Your task to perform on an android device: Open Reddit.com Image 0: 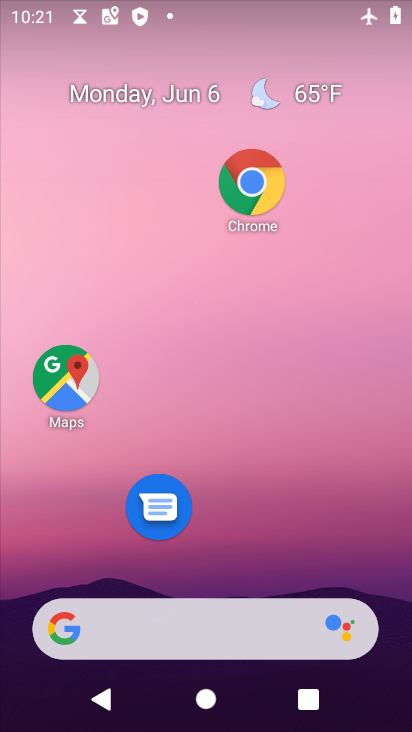
Step 0: click (246, 179)
Your task to perform on an android device: Open Reddit.com Image 1: 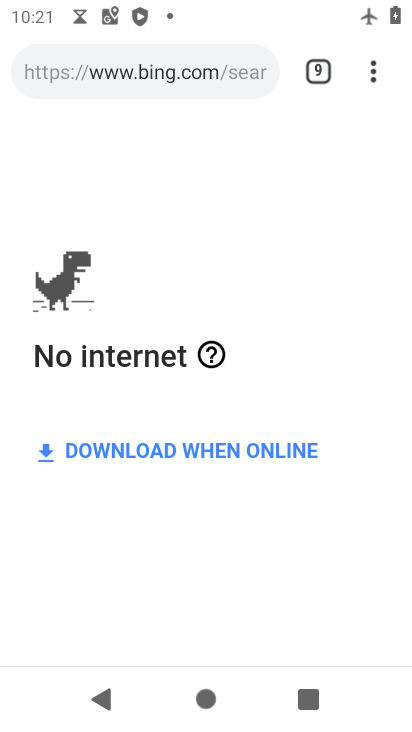
Step 1: click (385, 61)
Your task to perform on an android device: Open Reddit.com Image 2: 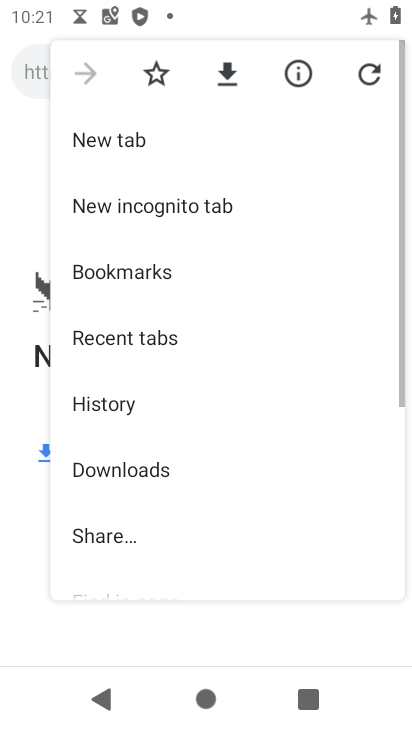
Step 2: click (127, 153)
Your task to perform on an android device: Open Reddit.com Image 3: 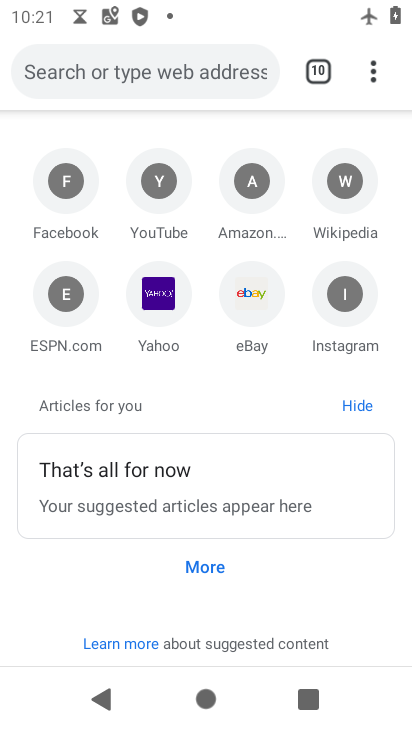
Step 3: click (171, 55)
Your task to perform on an android device: Open Reddit.com Image 4: 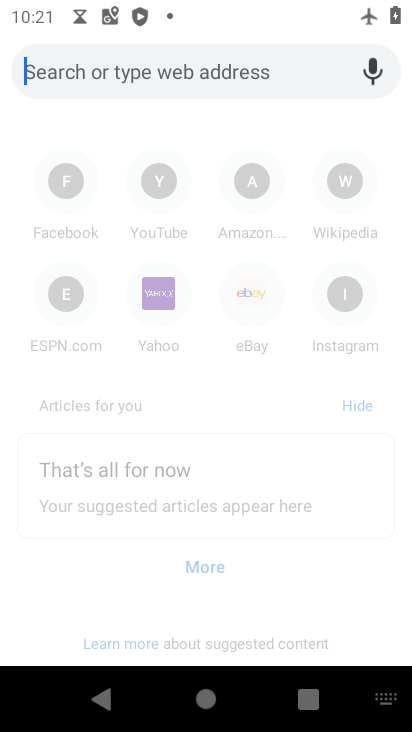
Step 4: type " Reddit.com"
Your task to perform on an android device: Open Reddit.com Image 5: 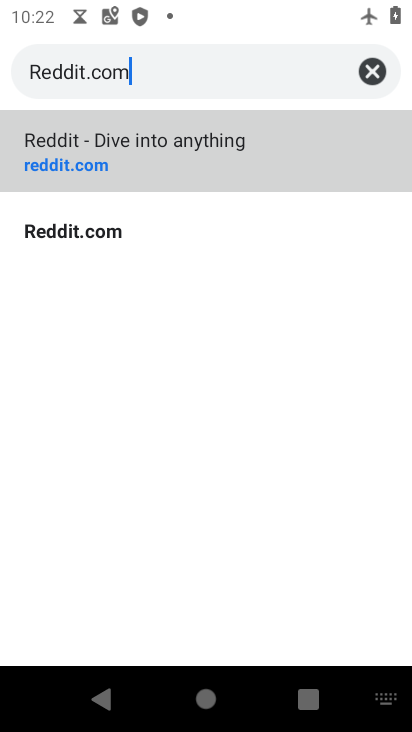
Step 5: click (214, 171)
Your task to perform on an android device: Open Reddit.com Image 6: 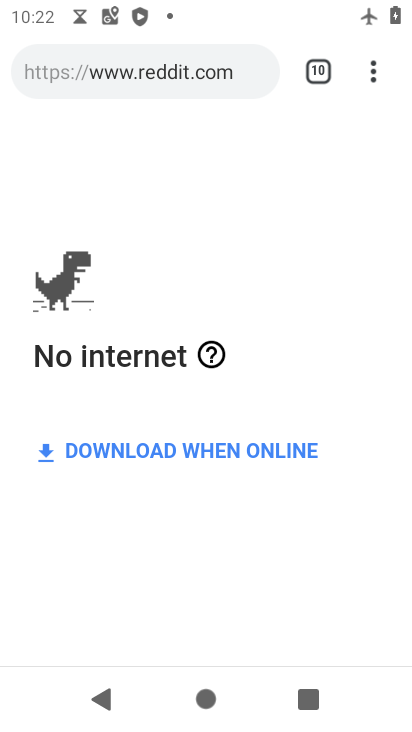
Step 6: task complete